Your task to perform on an android device: Turn off the flashlight Image 0: 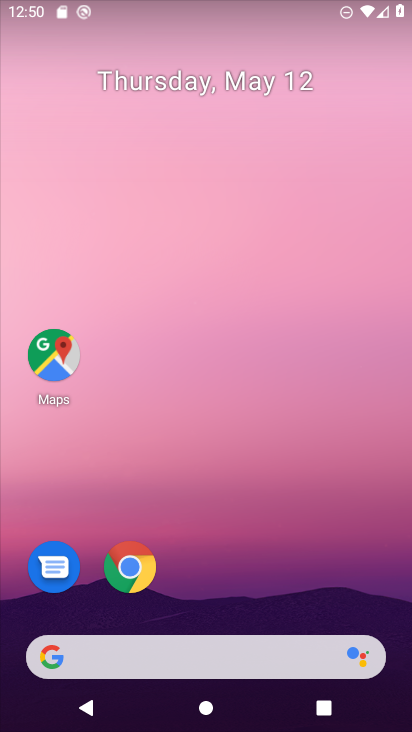
Step 0: drag from (219, 14) to (169, 719)
Your task to perform on an android device: Turn off the flashlight Image 1: 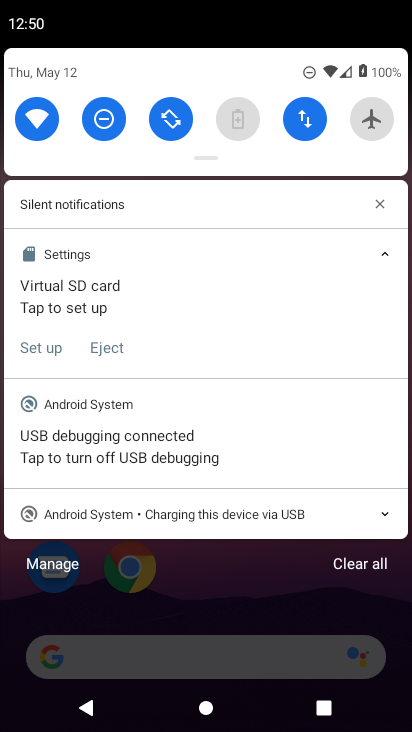
Step 1: task complete